Your task to perform on an android device: open app "Yahoo Mail" Image 0: 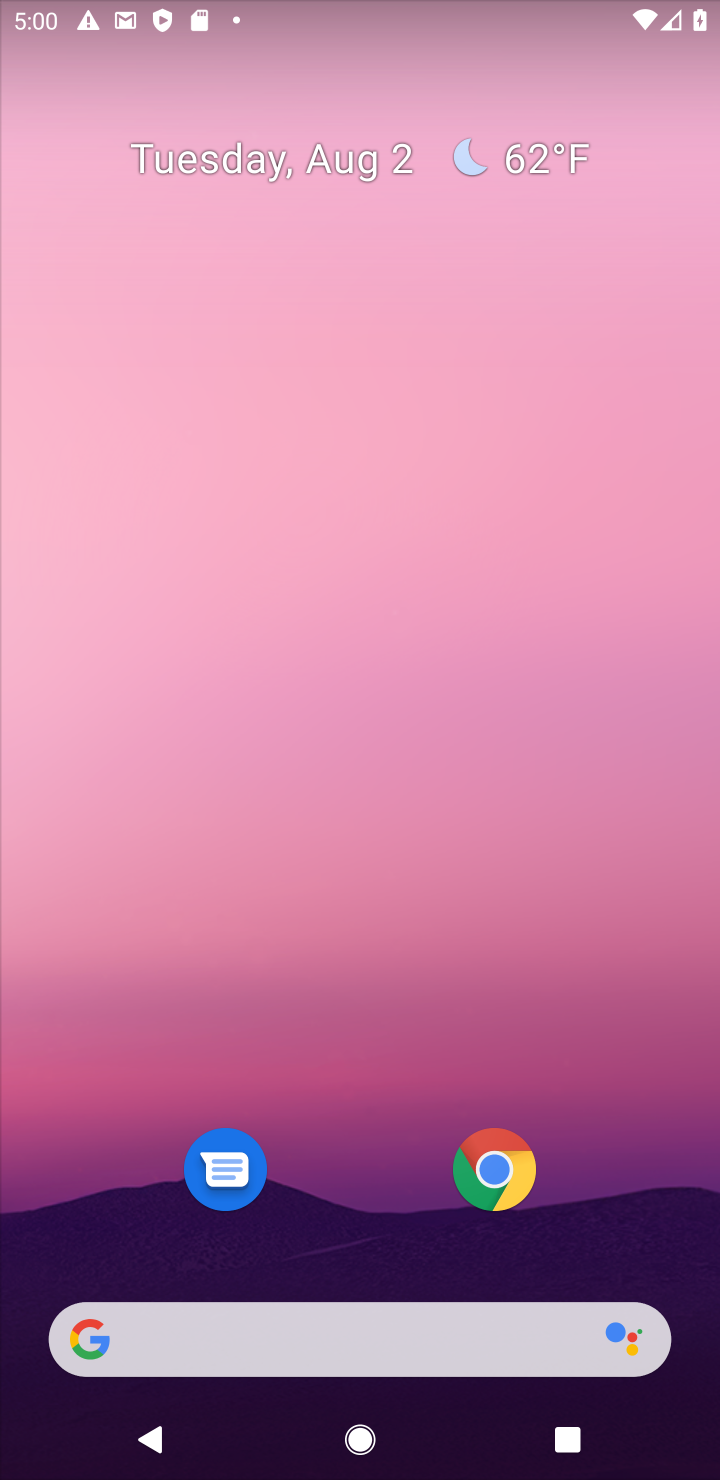
Step 0: drag from (420, 1064) to (252, 497)
Your task to perform on an android device: open app "Yahoo Mail" Image 1: 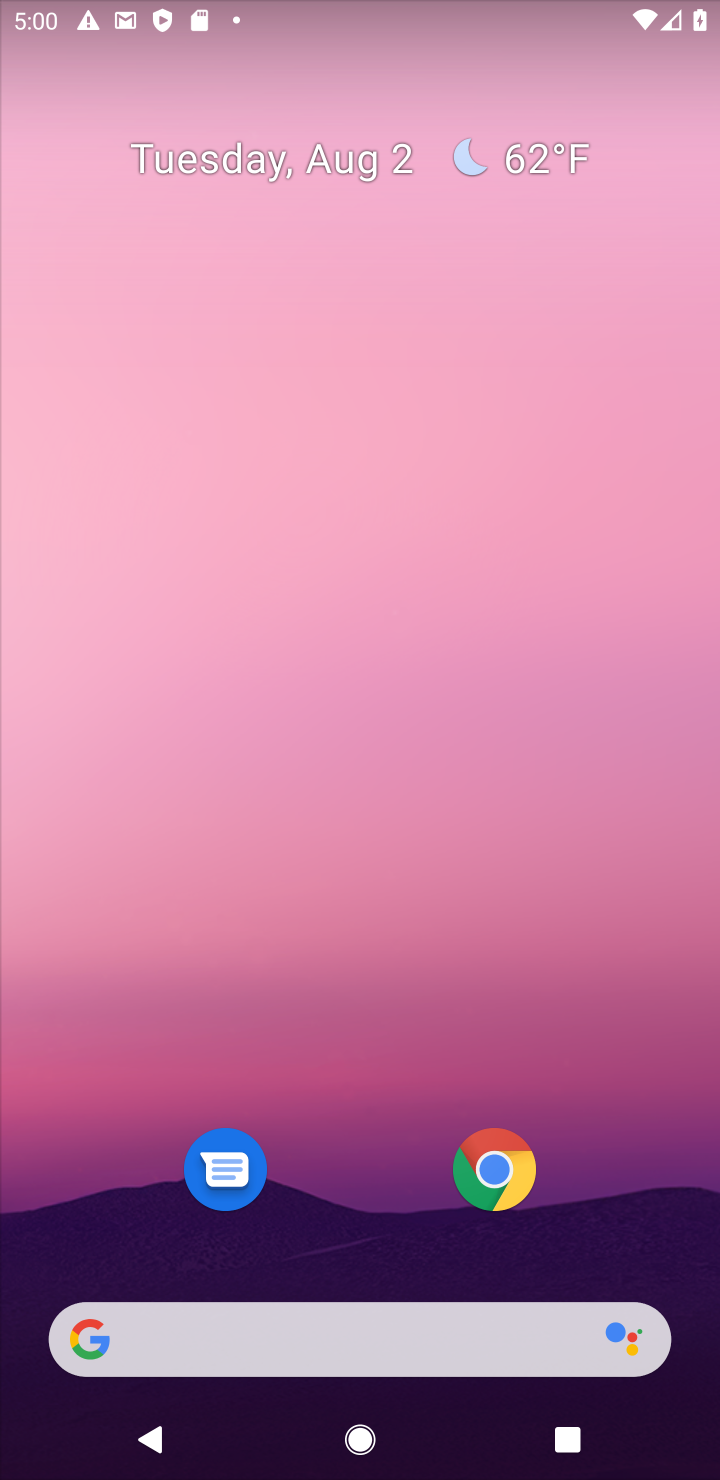
Step 1: drag from (394, 1176) to (275, 249)
Your task to perform on an android device: open app "Yahoo Mail" Image 2: 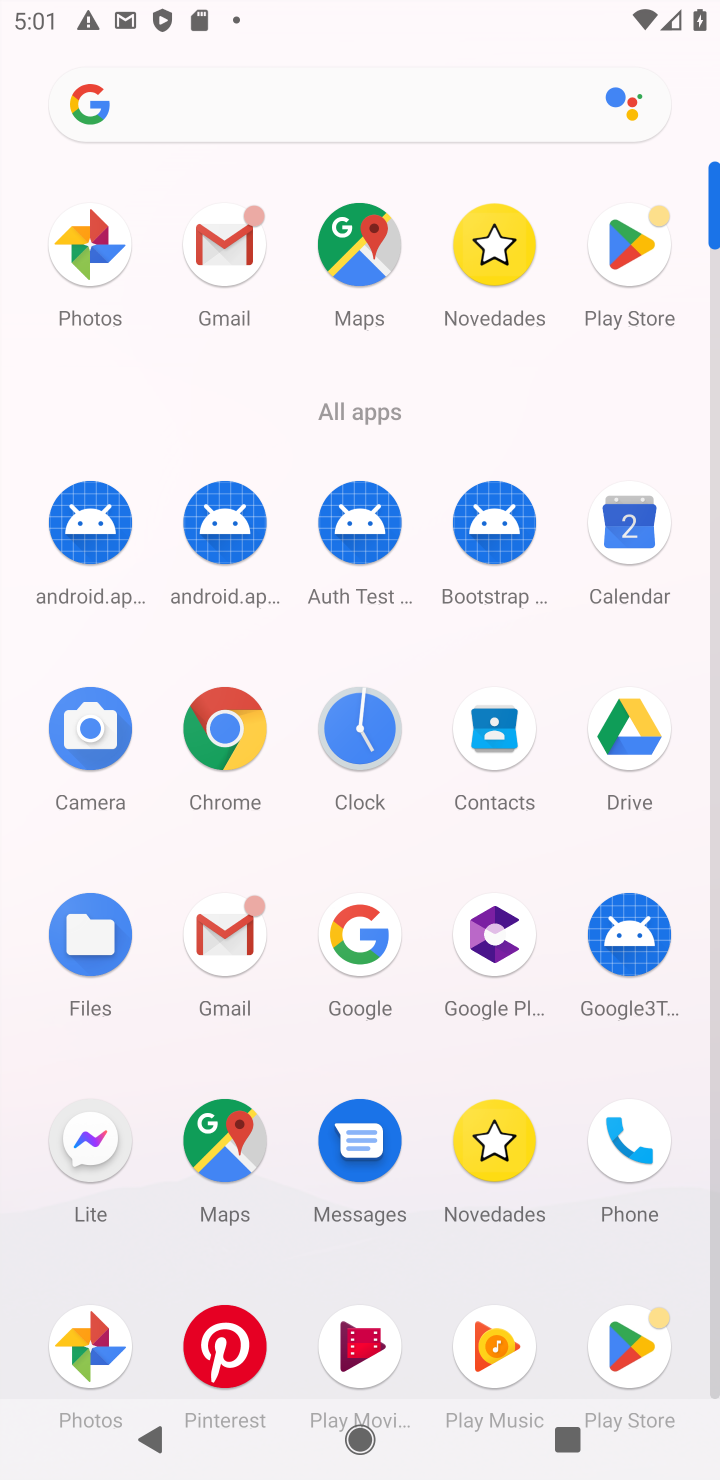
Step 2: click (662, 265)
Your task to perform on an android device: open app "Yahoo Mail" Image 3: 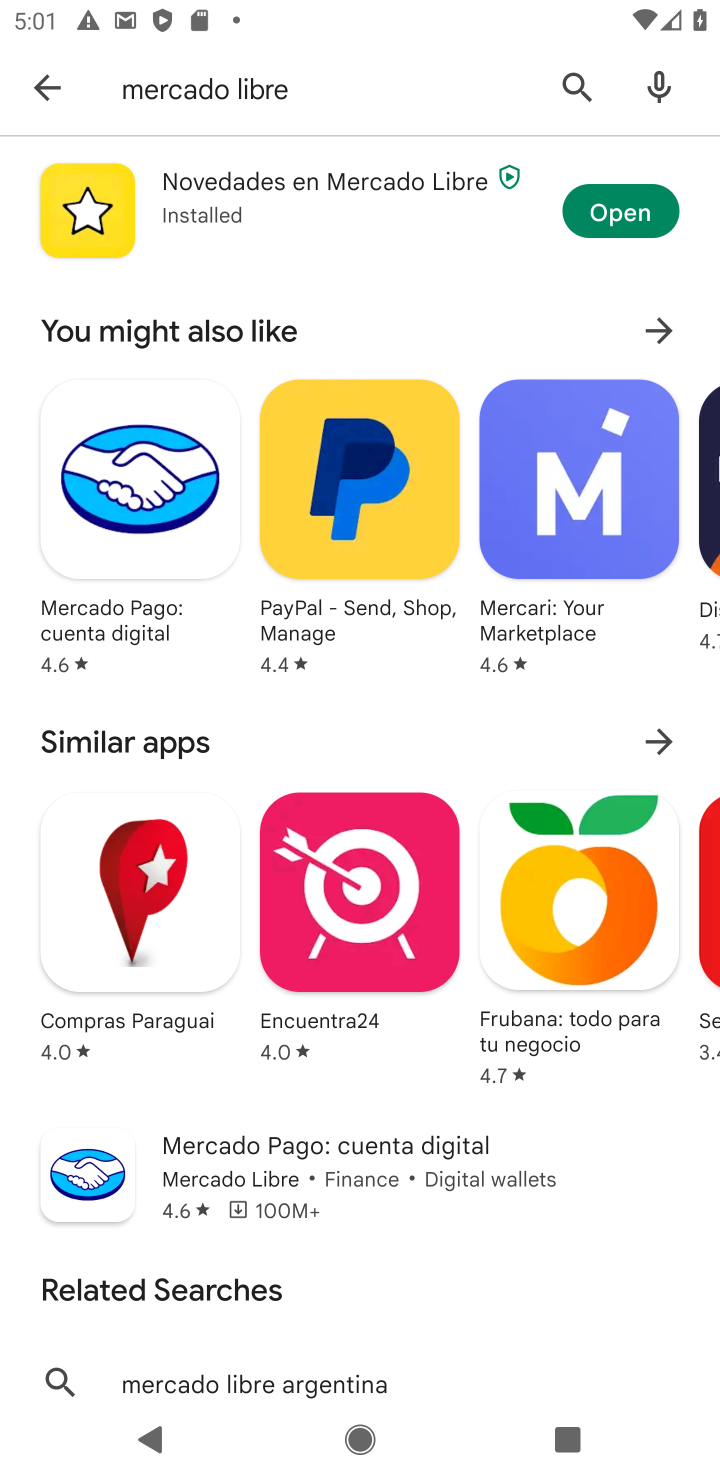
Step 3: click (563, 97)
Your task to perform on an android device: open app "Yahoo Mail" Image 4: 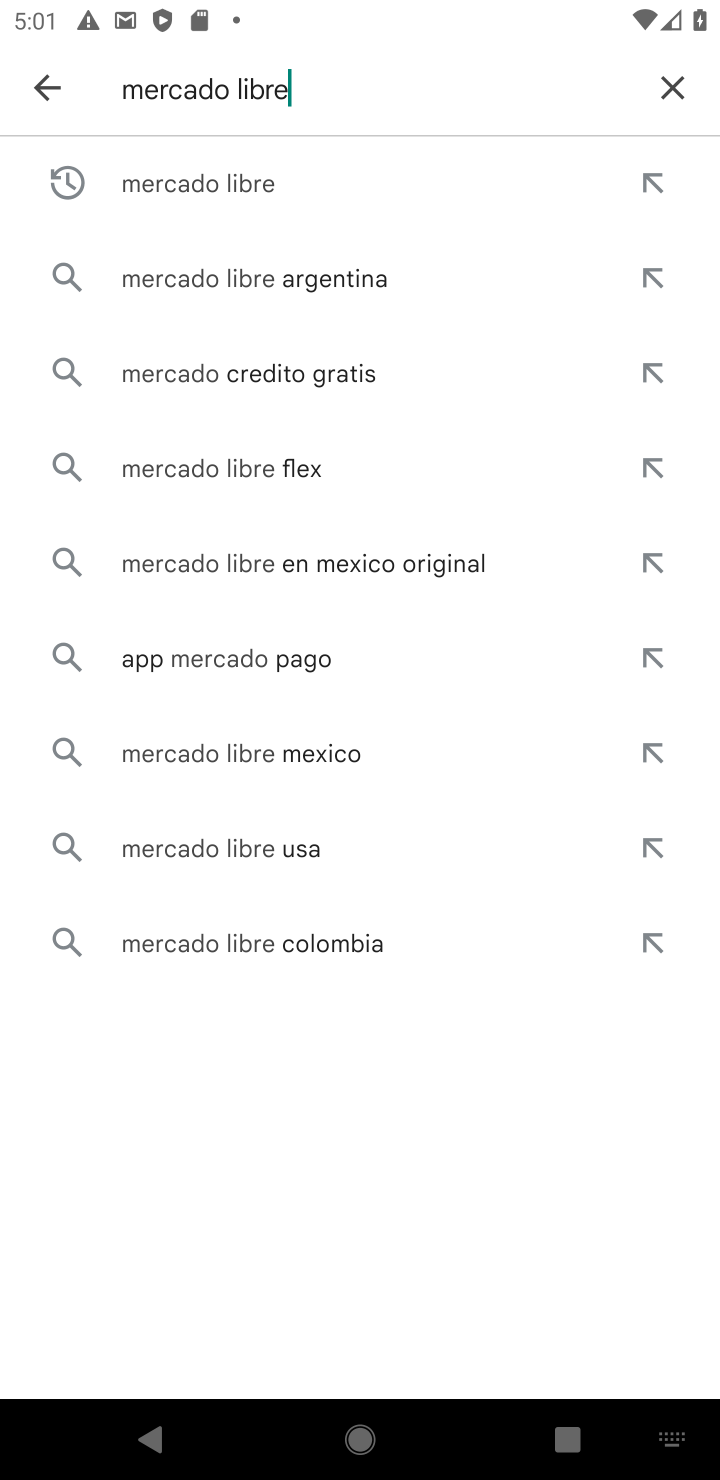
Step 4: click (672, 77)
Your task to perform on an android device: open app "Yahoo Mail" Image 5: 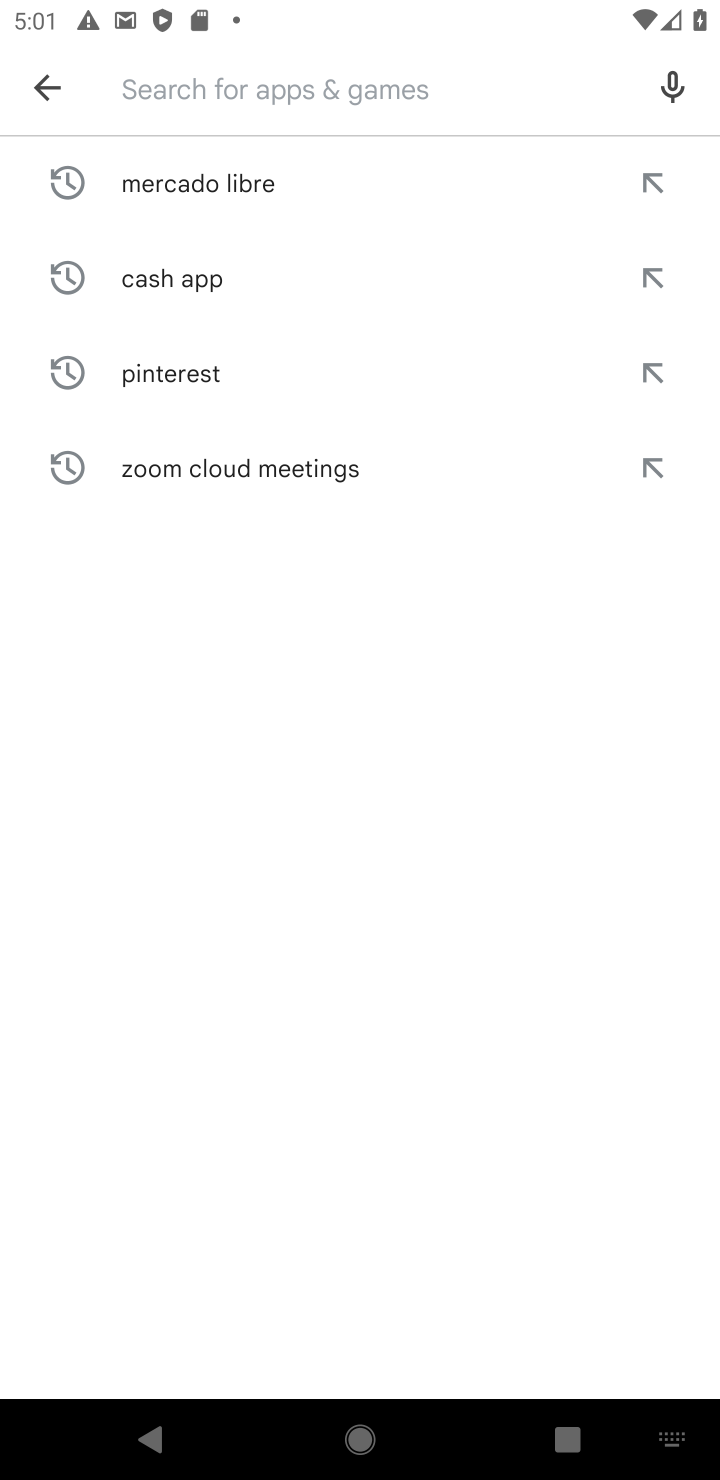
Step 5: type "yahoo mail"
Your task to perform on an android device: open app "Yahoo Mail" Image 6: 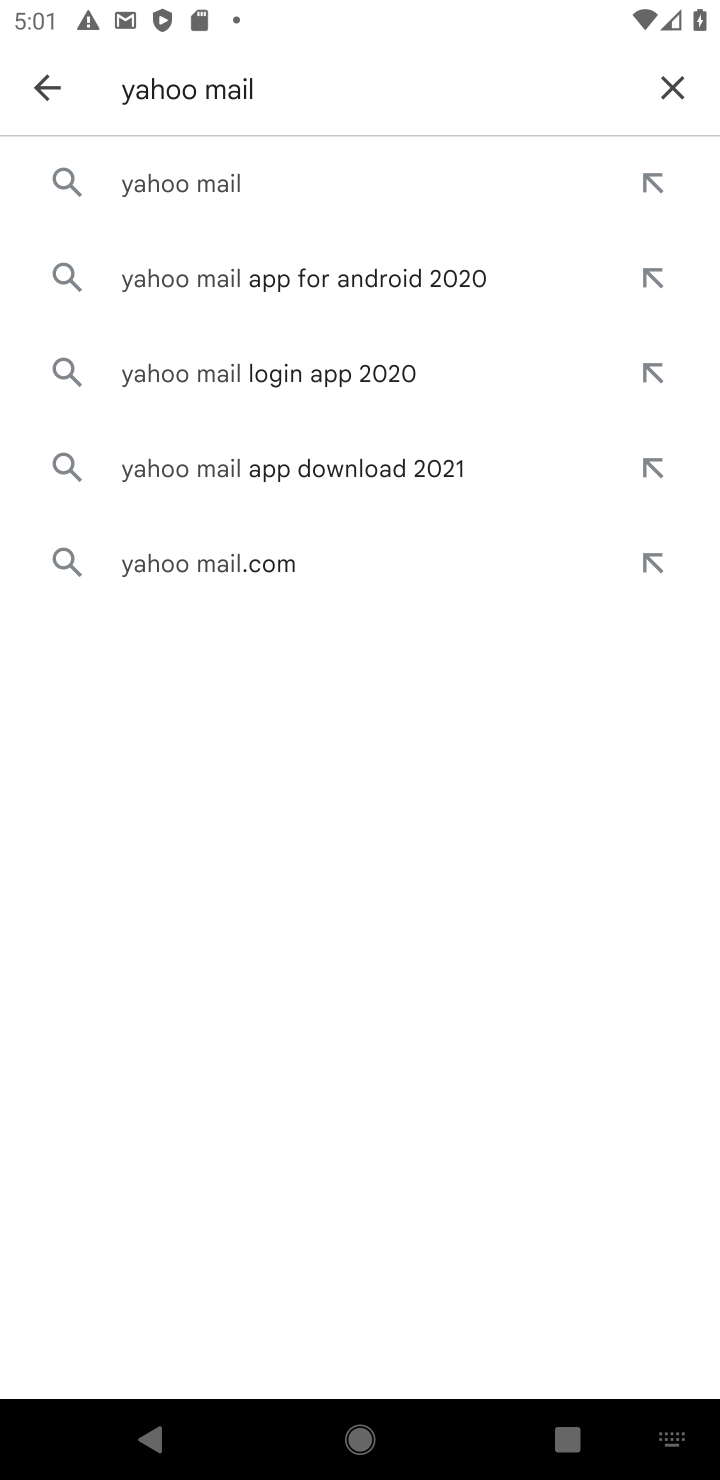
Step 6: click (172, 193)
Your task to perform on an android device: open app "Yahoo Mail" Image 7: 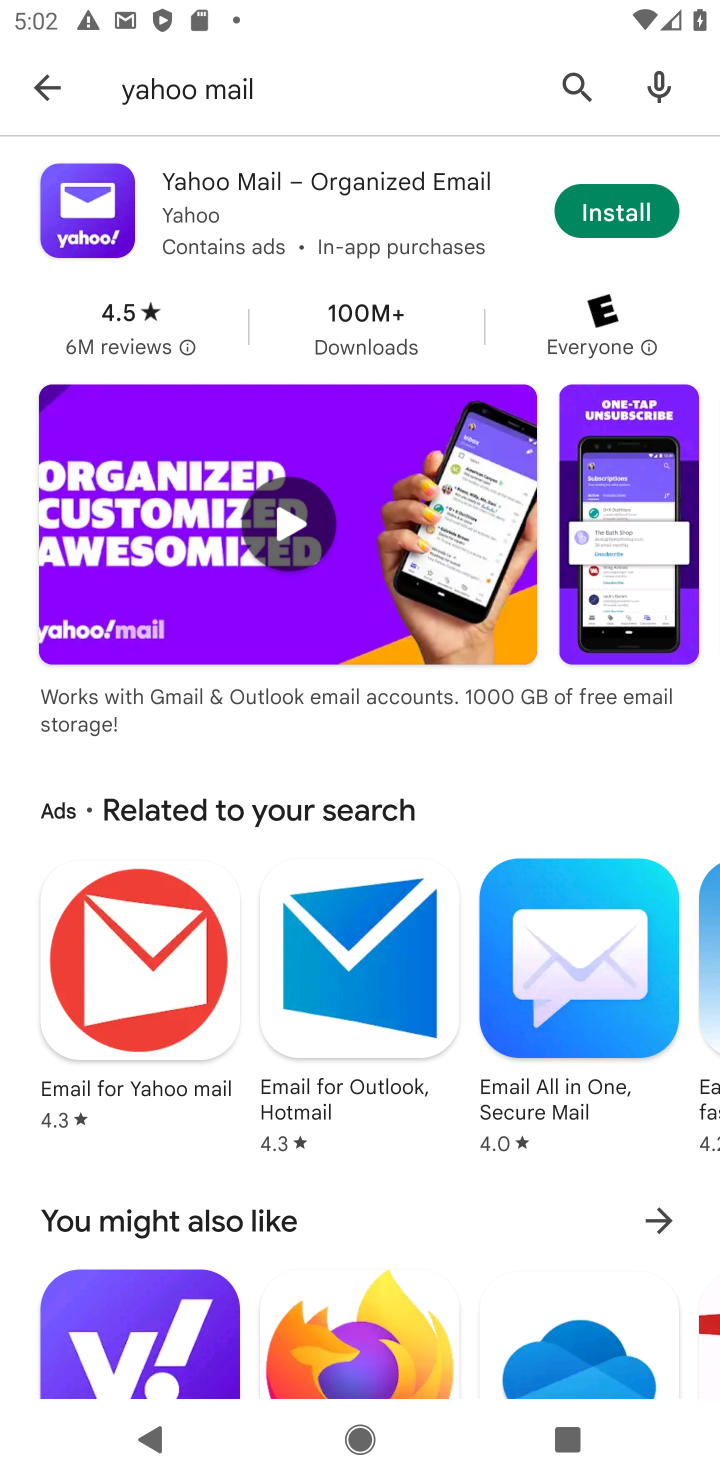
Step 7: task complete